Your task to perform on an android device: turn on location history Image 0: 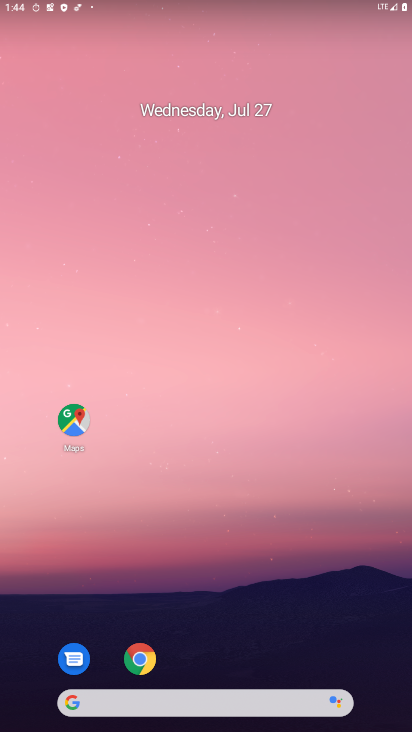
Step 0: drag from (249, 596) to (295, 65)
Your task to perform on an android device: turn on location history Image 1: 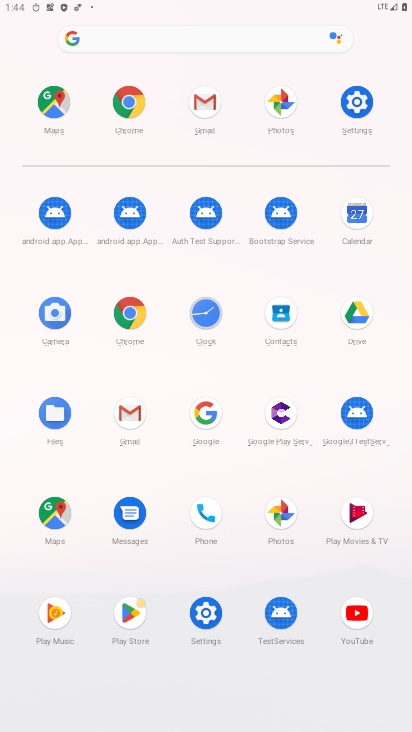
Step 1: click (198, 610)
Your task to perform on an android device: turn on location history Image 2: 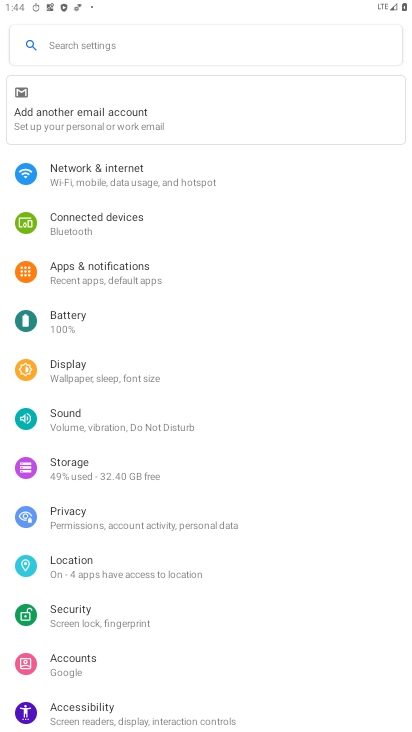
Step 2: press home button
Your task to perform on an android device: turn on location history Image 3: 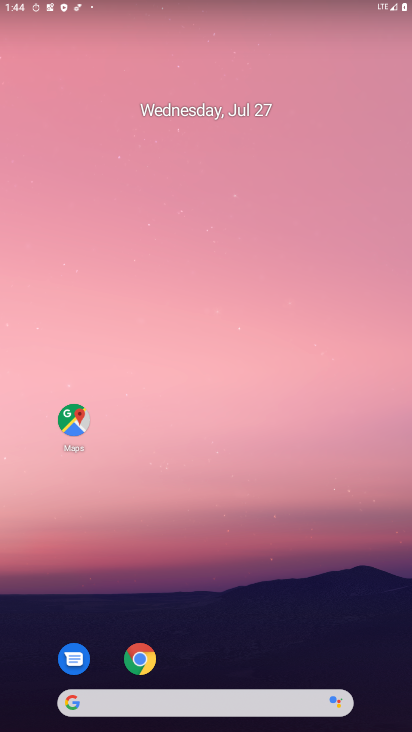
Step 3: click (61, 412)
Your task to perform on an android device: turn on location history Image 4: 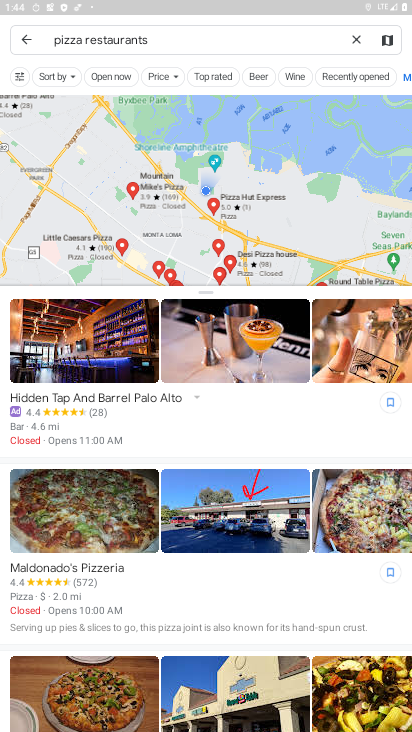
Step 4: click (356, 42)
Your task to perform on an android device: turn on location history Image 5: 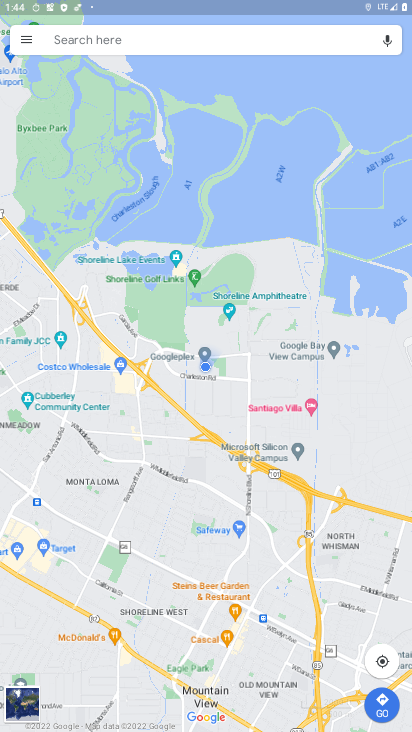
Step 5: click (25, 43)
Your task to perform on an android device: turn on location history Image 6: 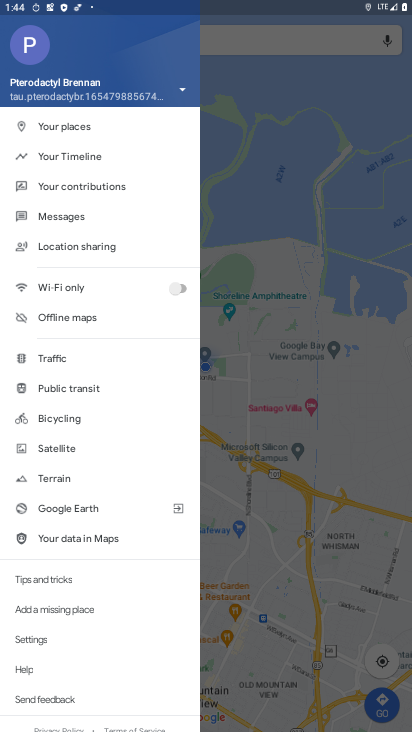
Step 6: click (74, 156)
Your task to perform on an android device: turn on location history Image 7: 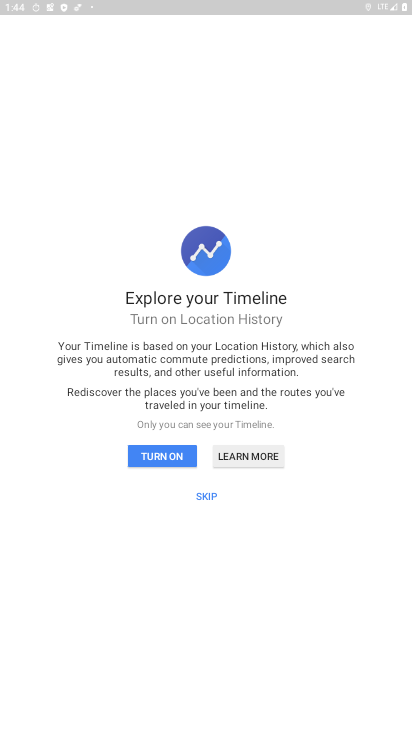
Step 7: click (149, 459)
Your task to perform on an android device: turn on location history Image 8: 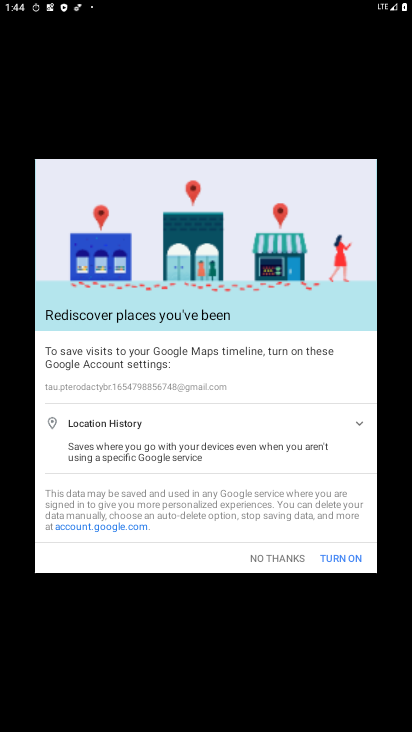
Step 8: click (323, 553)
Your task to perform on an android device: turn on location history Image 9: 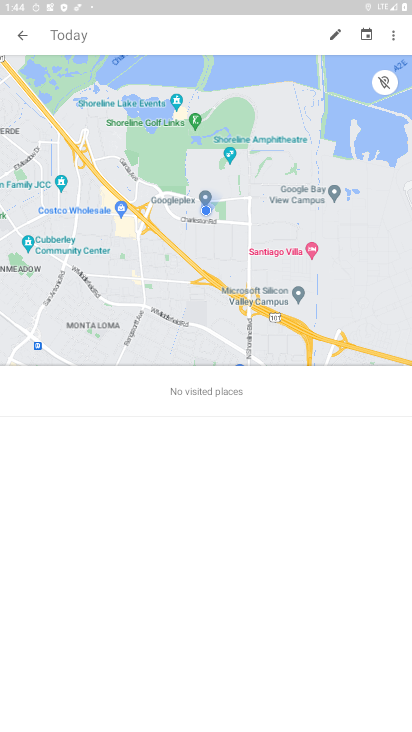
Step 9: click (308, 69)
Your task to perform on an android device: turn on location history Image 10: 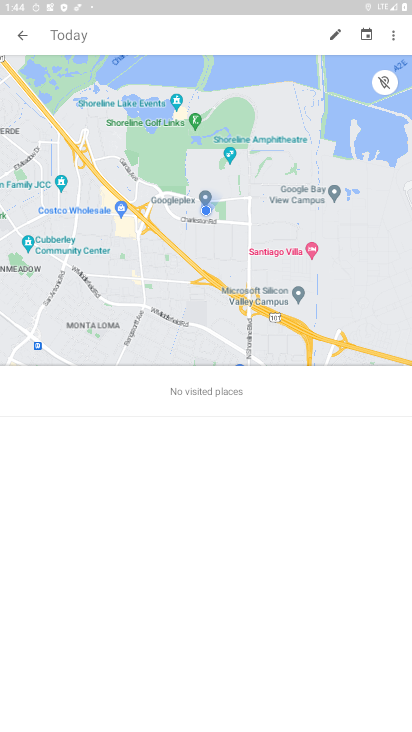
Step 10: click (391, 31)
Your task to perform on an android device: turn on location history Image 11: 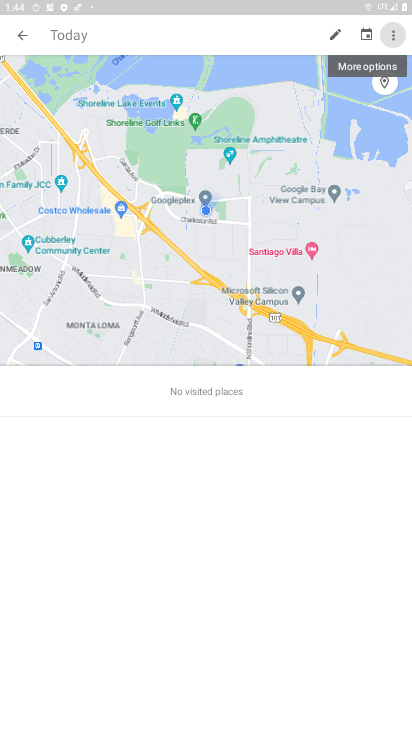
Step 11: click (391, 33)
Your task to perform on an android device: turn on location history Image 12: 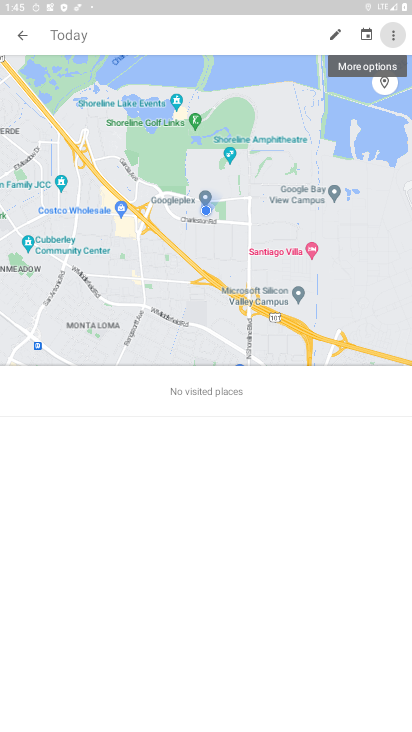
Step 12: click (389, 38)
Your task to perform on an android device: turn on location history Image 13: 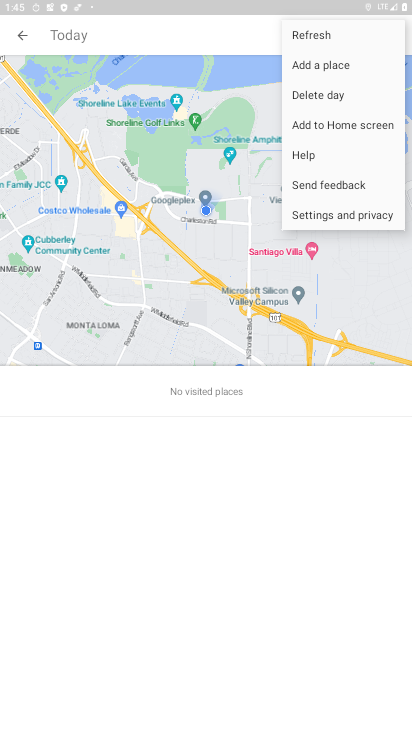
Step 13: click (334, 214)
Your task to perform on an android device: turn on location history Image 14: 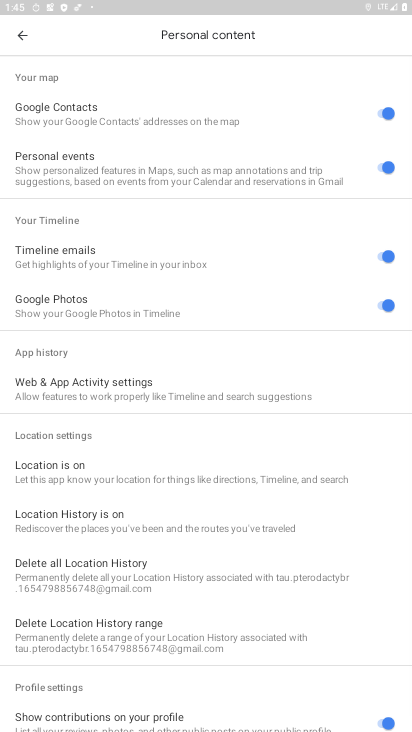
Step 14: drag from (209, 571) to (219, 192)
Your task to perform on an android device: turn on location history Image 15: 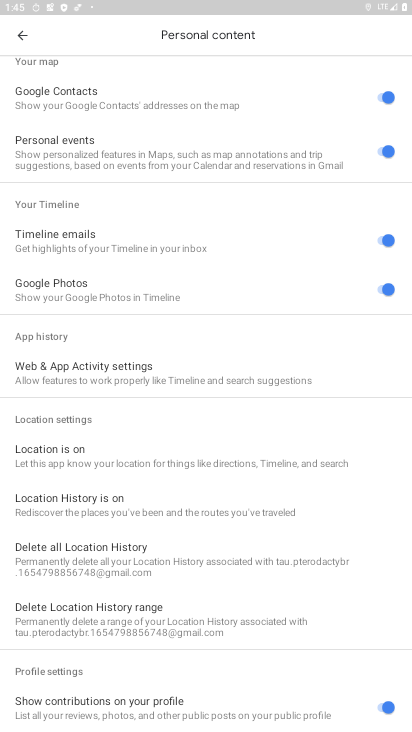
Step 15: click (85, 493)
Your task to perform on an android device: turn on location history Image 16: 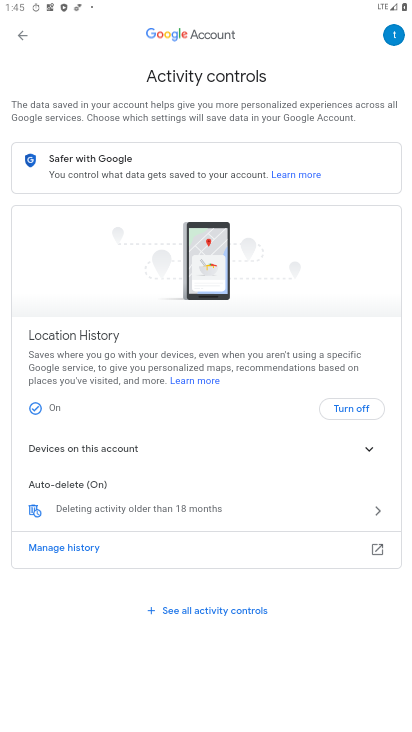
Step 16: click (354, 401)
Your task to perform on an android device: turn on location history Image 17: 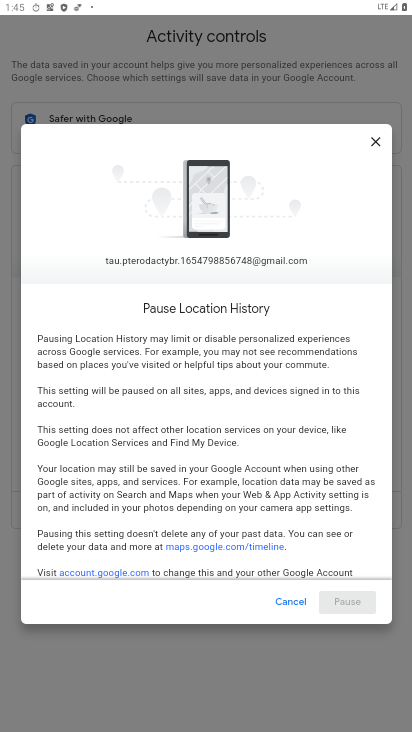
Step 17: drag from (332, 557) to (305, 128)
Your task to perform on an android device: turn on location history Image 18: 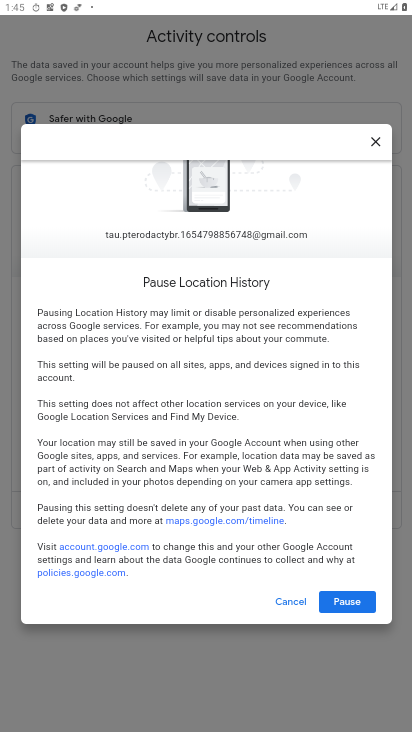
Step 18: click (288, 593)
Your task to perform on an android device: turn on location history Image 19: 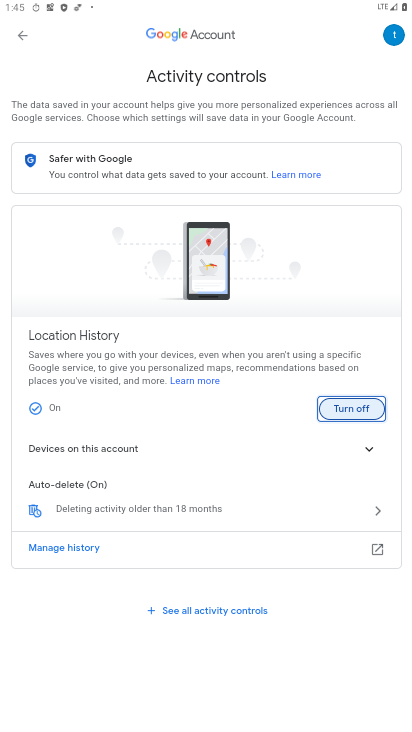
Step 19: task complete